Your task to perform on an android device: remove spam from my inbox in the gmail app Image 0: 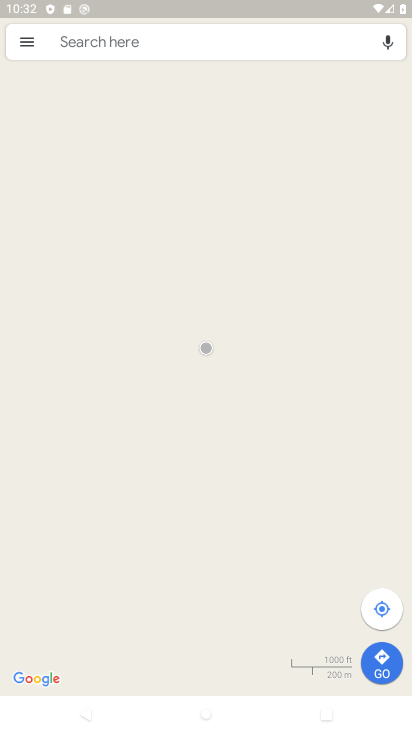
Step 0: press home button
Your task to perform on an android device: remove spam from my inbox in the gmail app Image 1: 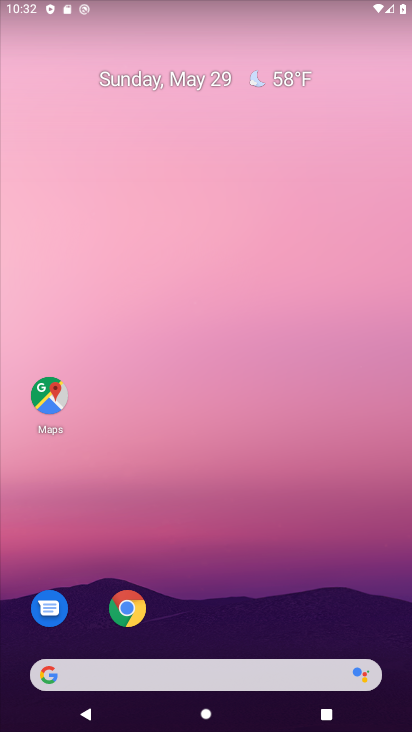
Step 1: drag from (230, 664) to (230, 180)
Your task to perform on an android device: remove spam from my inbox in the gmail app Image 2: 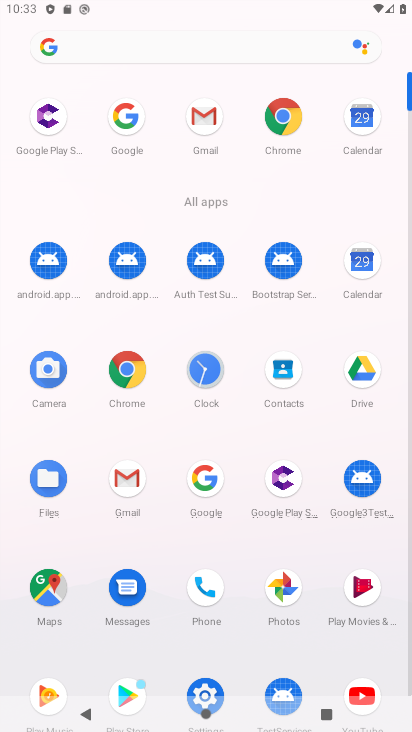
Step 2: click (207, 118)
Your task to perform on an android device: remove spam from my inbox in the gmail app Image 3: 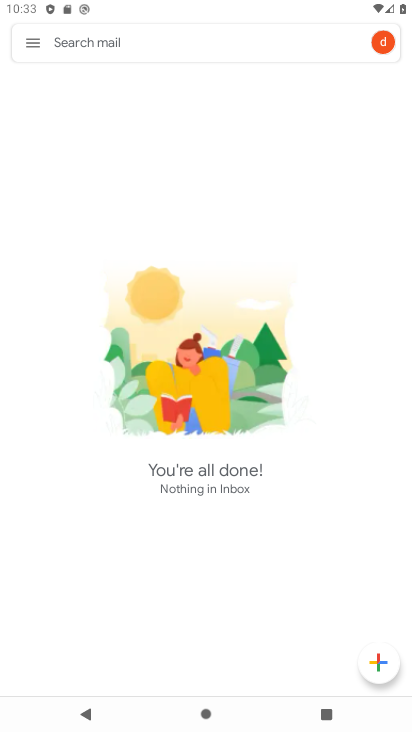
Step 3: click (29, 42)
Your task to perform on an android device: remove spam from my inbox in the gmail app Image 4: 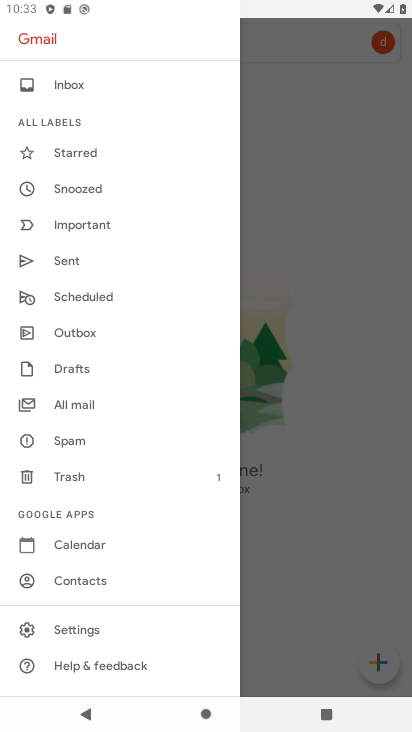
Step 4: click (67, 478)
Your task to perform on an android device: remove spam from my inbox in the gmail app Image 5: 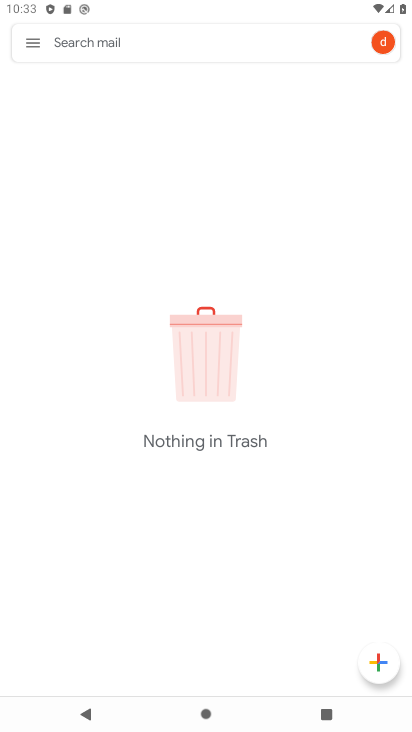
Step 5: press back button
Your task to perform on an android device: remove spam from my inbox in the gmail app Image 6: 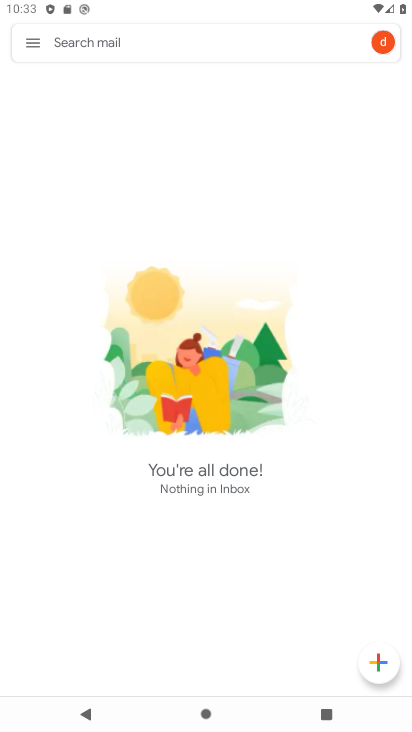
Step 6: click (38, 48)
Your task to perform on an android device: remove spam from my inbox in the gmail app Image 7: 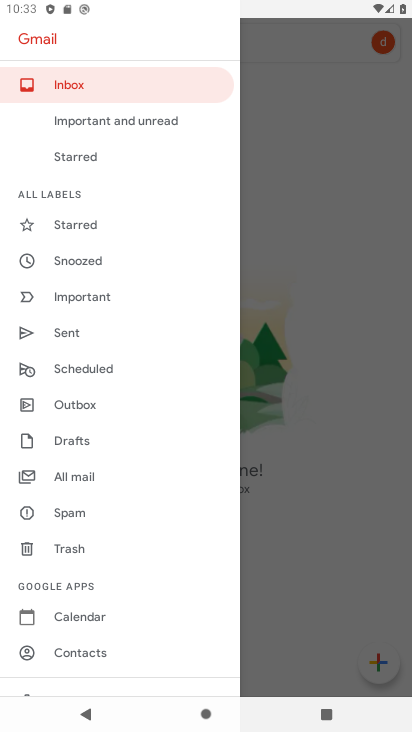
Step 7: click (80, 517)
Your task to perform on an android device: remove spam from my inbox in the gmail app Image 8: 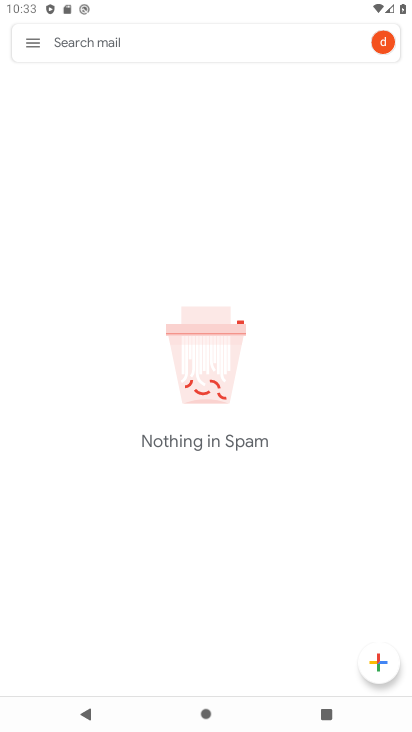
Step 8: task complete